Your task to perform on an android device: Search for vegetarian restaurants on Maps Image 0: 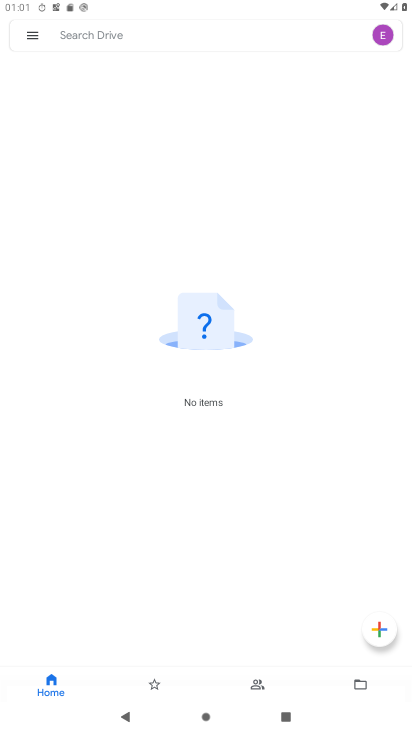
Step 0: press home button
Your task to perform on an android device: Search for vegetarian restaurants on Maps Image 1: 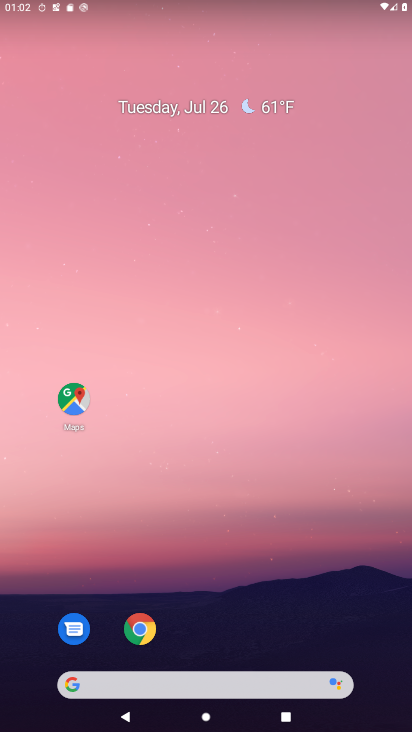
Step 1: click (57, 386)
Your task to perform on an android device: Search for vegetarian restaurants on Maps Image 2: 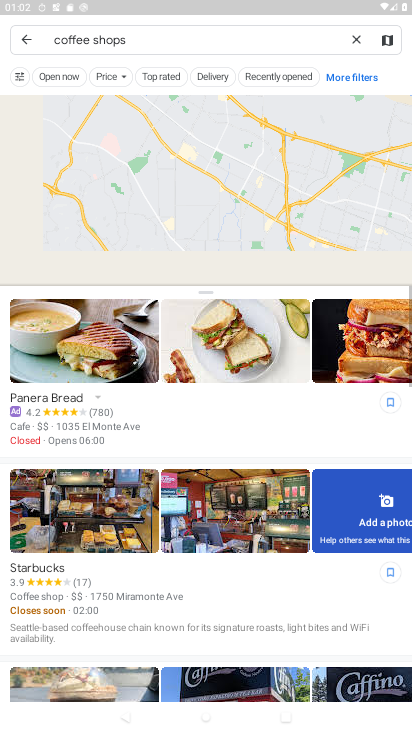
Step 2: click (347, 48)
Your task to perform on an android device: Search for vegetarian restaurants on Maps Image 3: 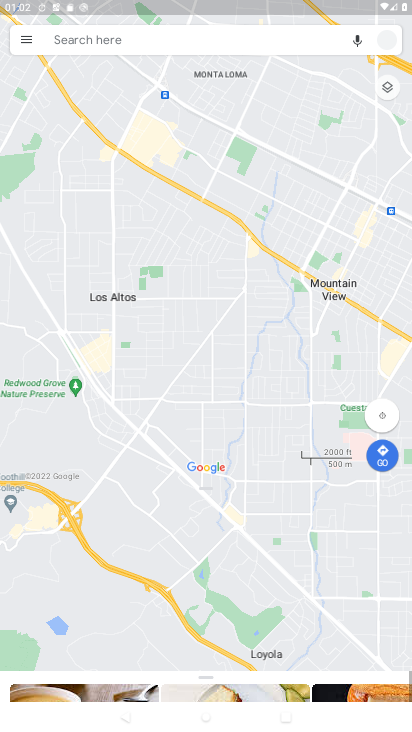
Step 3: click (190, 45)
Your task to perform on an android device: Search for vegetarian restaurants on Maps Image 4: 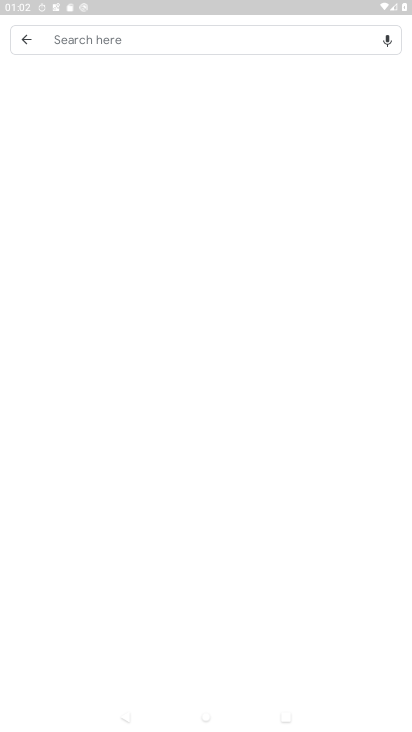
Step 4: click (190, 45)
Your task to perform on an android device: Search for vegetarian restaurants on Maps Image 5: 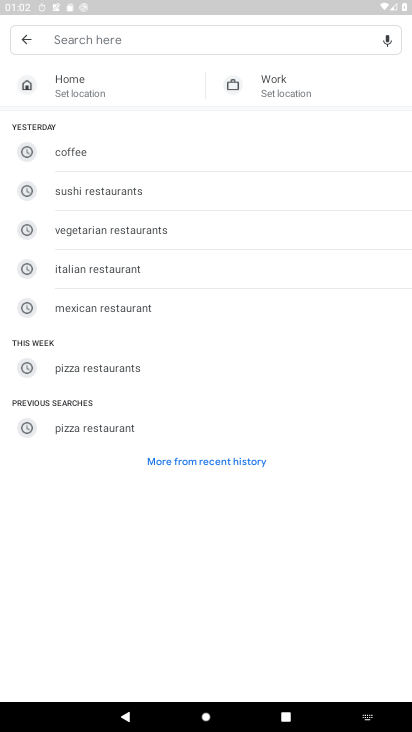
Step 5: click (161, 240)
Your task to perform on an android device: Search for vegetarian restaurants on Maps Image 6: 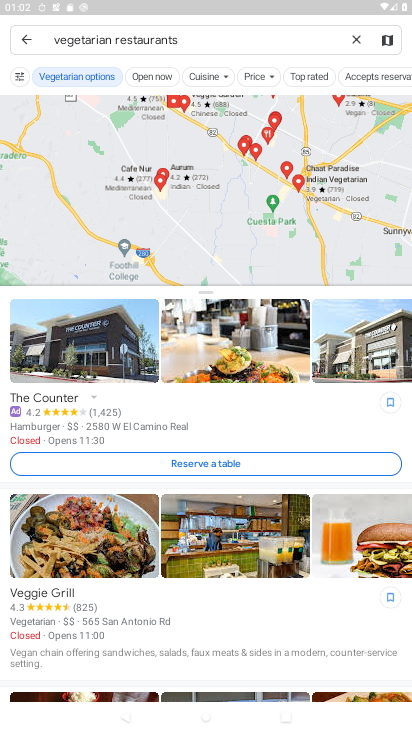
Step 6: task complete